Your task to perform on an android device: turn off priority inbox in the gmail app Image 0: 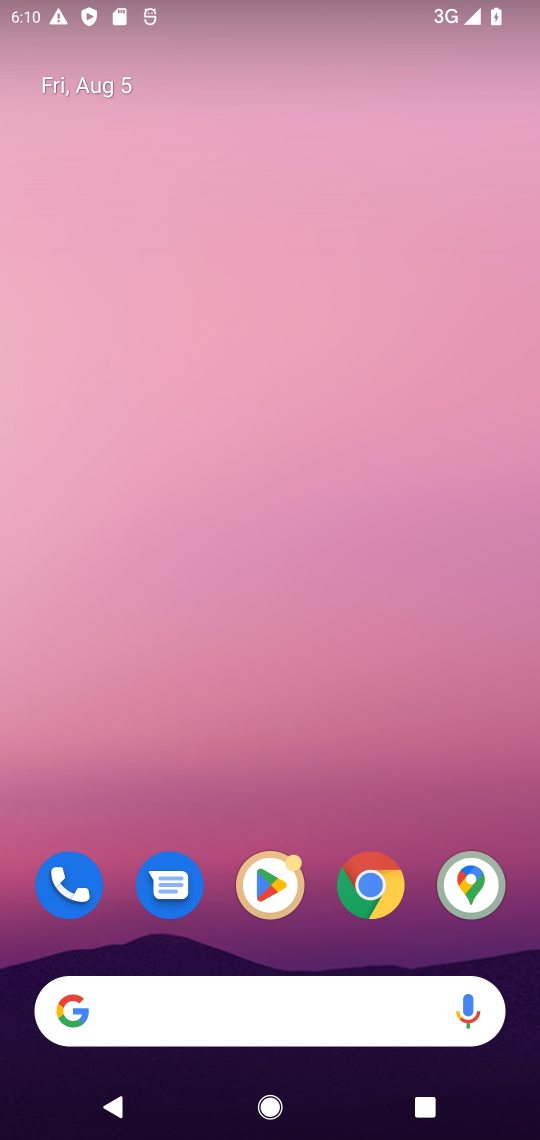
Step 0: drag from (197, 966) to (223, 14)
Your task to perform on an android device: turn off priority inbox in the gmail app Image 1: 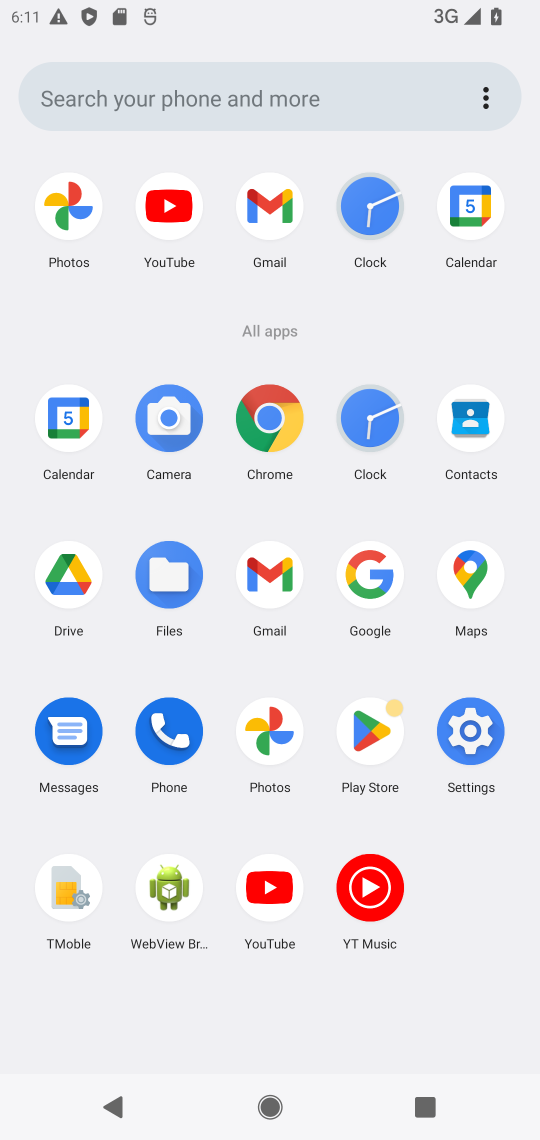
Step 1: press home button
Your task to perform on an android device: turn off priority inbox in the gmail app Image 2: 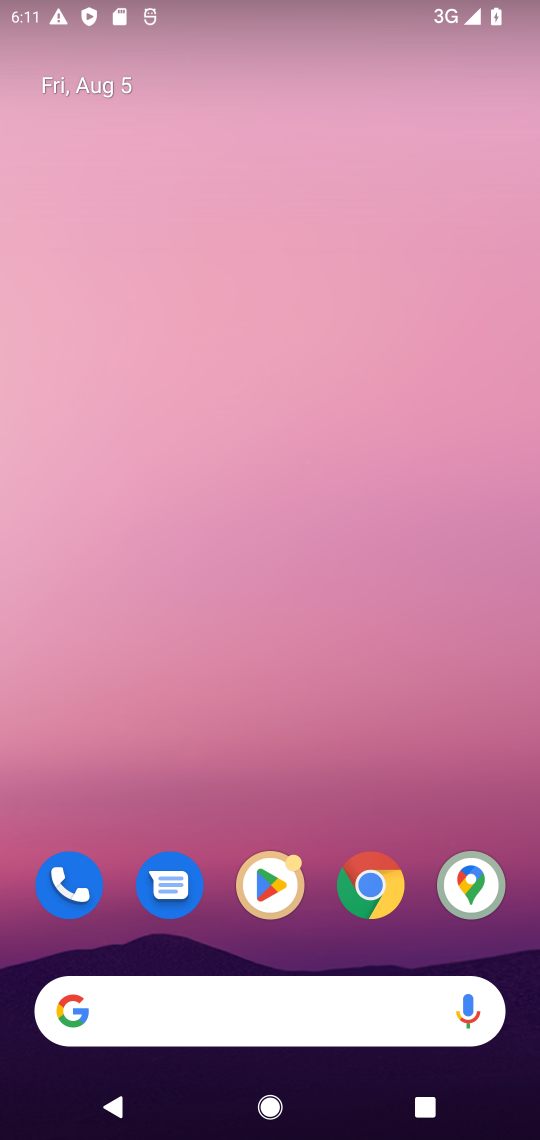
Step 2: drag from (215, 877) to (224, 11)
Your task to perform on an android device: turn off priority inbox in the gmail app Image 3: 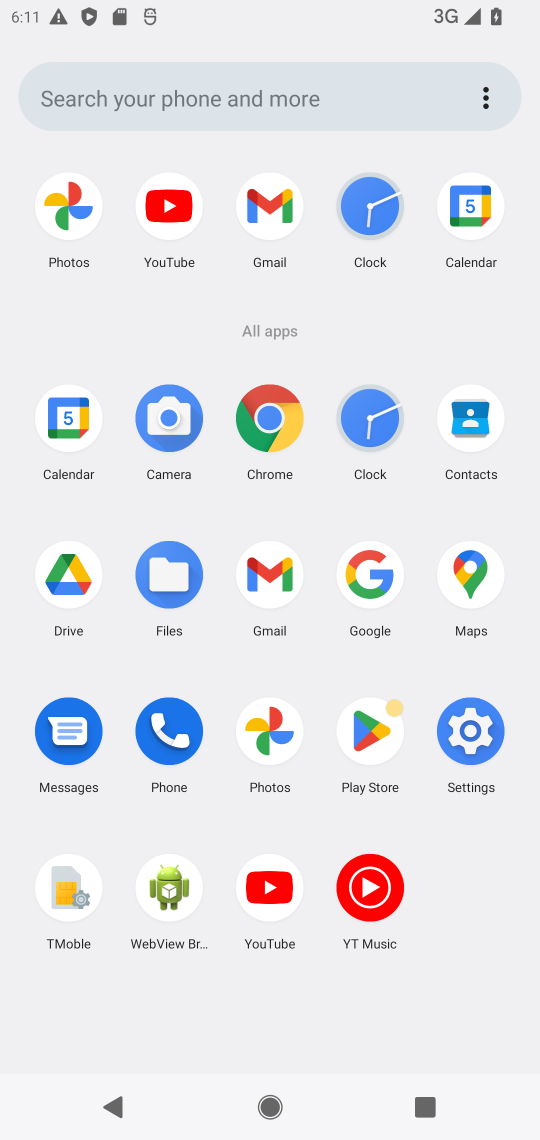
Step 3: click (289, 604)
Your task to perform on an android device: turn off priority inbox in the gmail app Image 4: 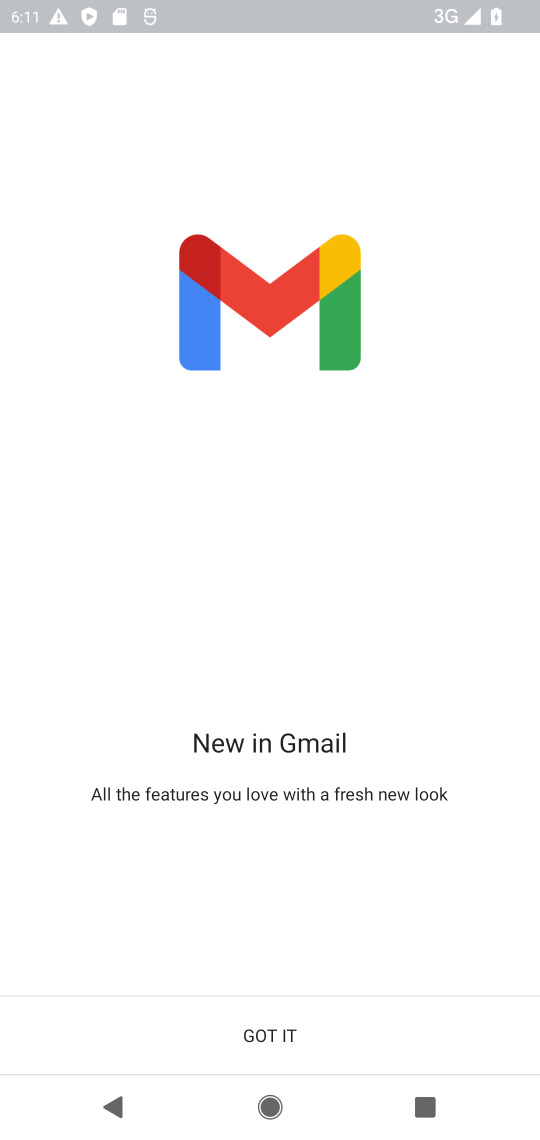
Step 4: click (280, 1028)
Your task to perform on an android device: turn off priority inbox in the gmail app Image 5: 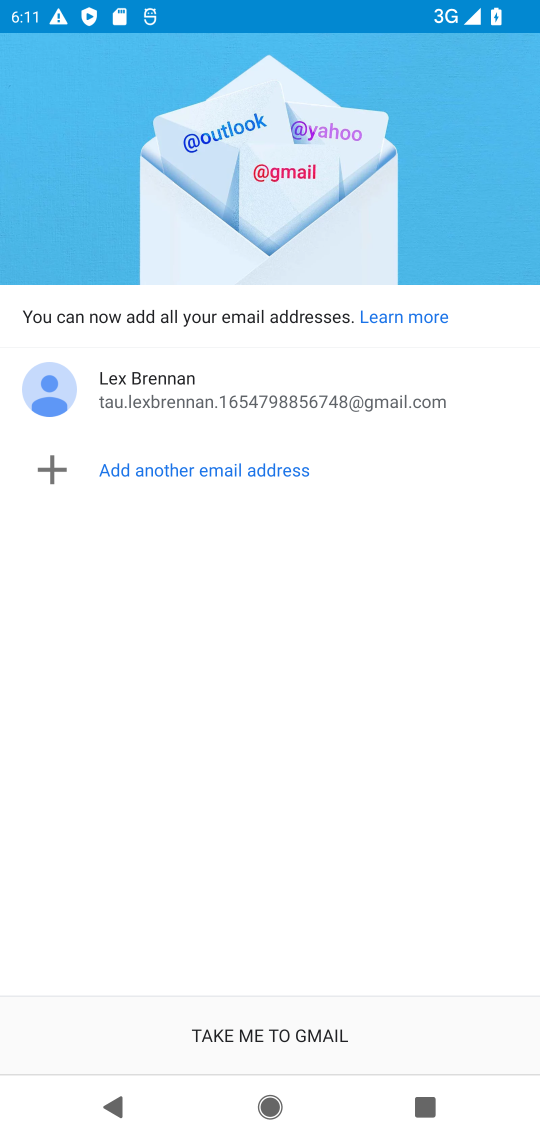
Step 5: click (251, 1028)
Your task to perform on an android device: turn off priority inbox in the gmail app Image 6: 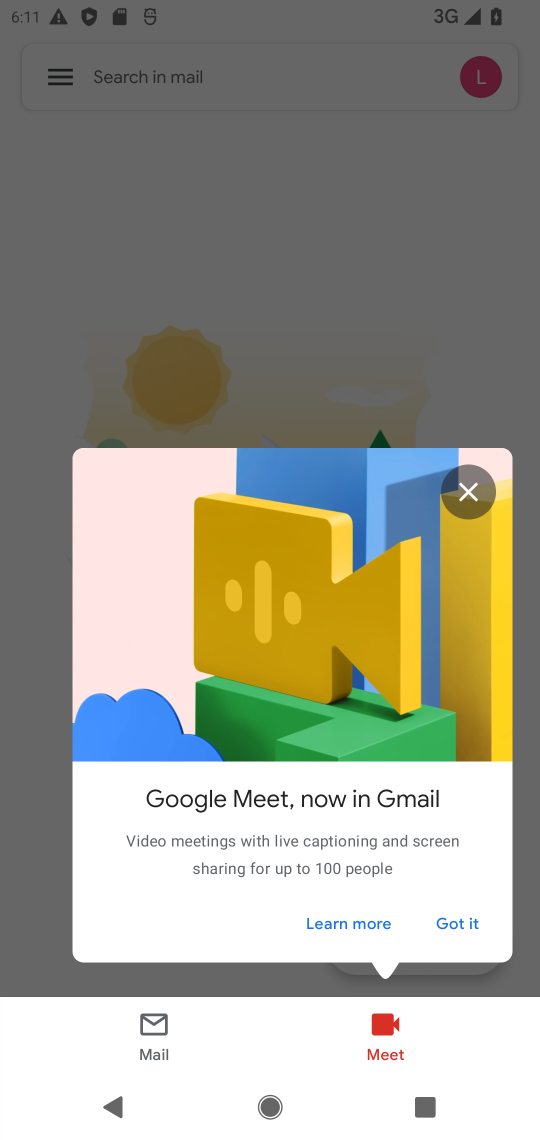
Step 6: click (450, 927)
Your task to perform on an android device: turn off priority inbox in the gmail app Image 7: 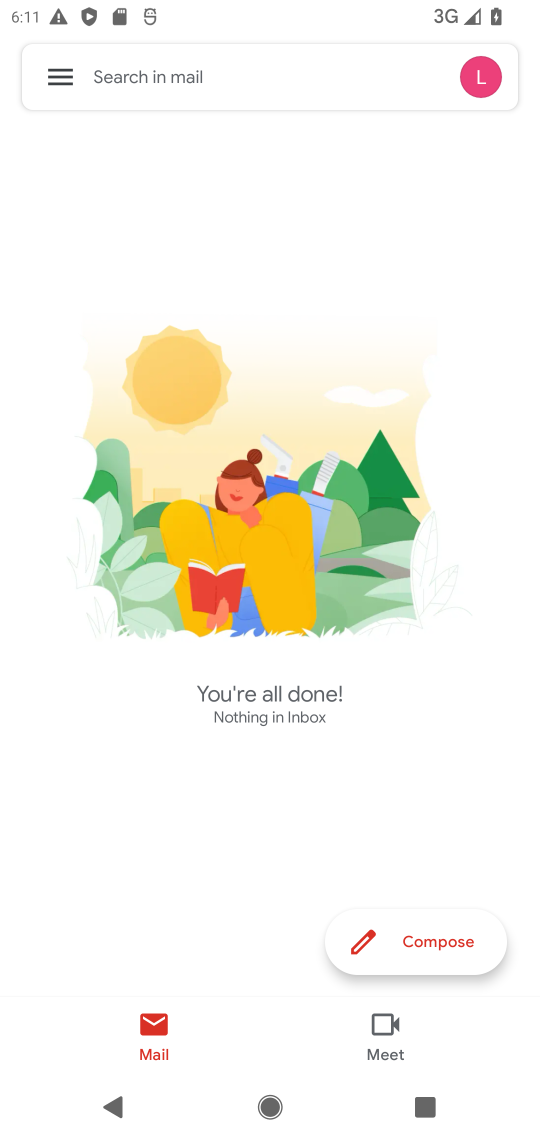
Step 7: click (47, 77)
Your task to perform on an android device: turn off priority inbox in the gmail app Image 8: 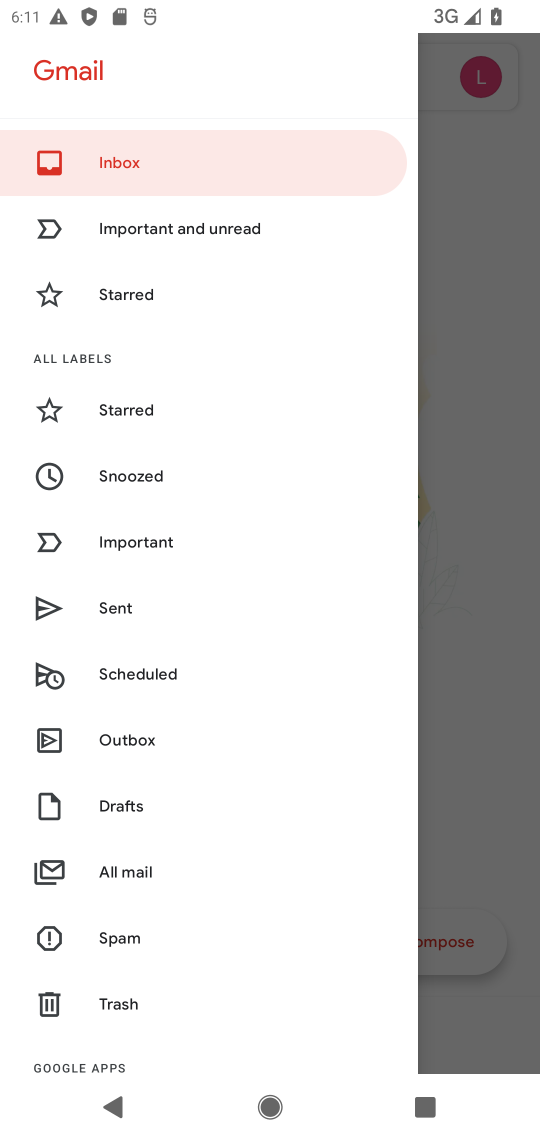
Step 8: drag from (155, 885) to (183, 432)
Your task to perform on an android device: turn off priority inbox in the gmail app Image 9: 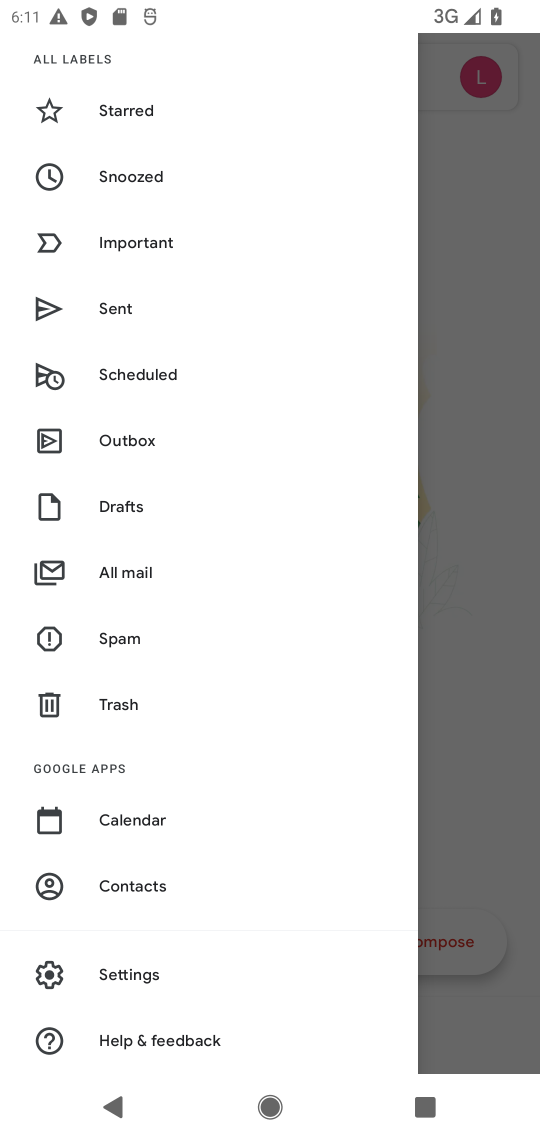
Step 9: click (118, 979)
Your task to perform on an android device: turn off priority inbox in the gmail app Image 10: 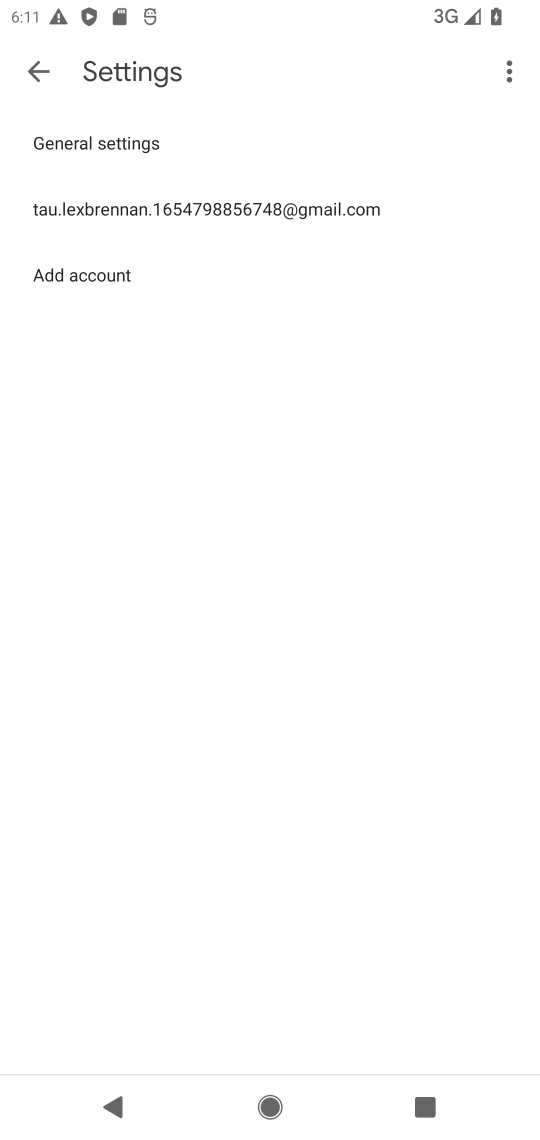
Step 10: click (139, 217)
Your task to perform on an android device: turn off priority inbox in the gmail app Image 11: 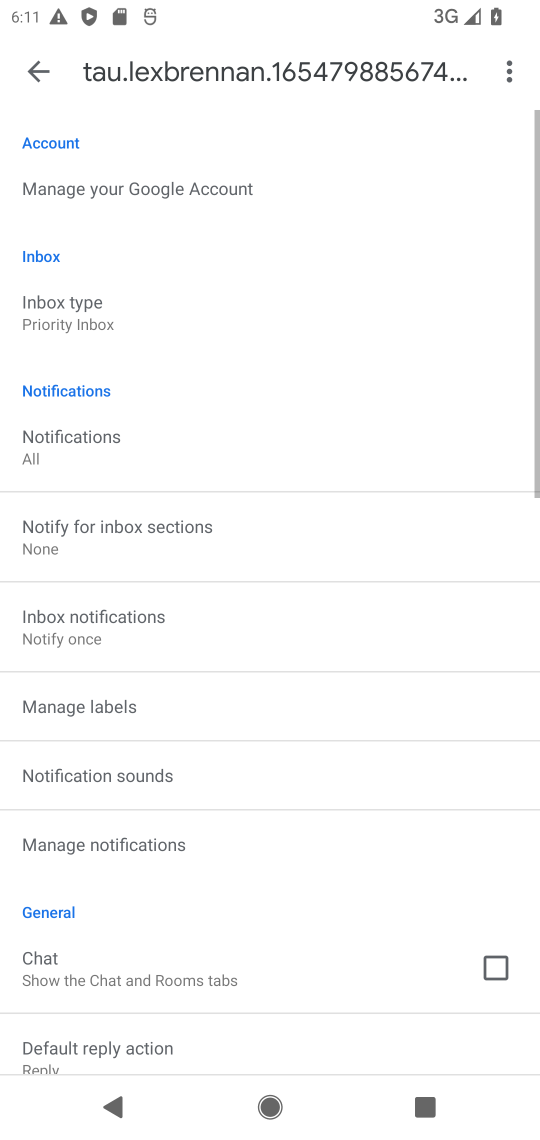
Step 11: click (113, 331)
Your task to perform on an android device: turn off priority inbox in the gmail app Image 12: 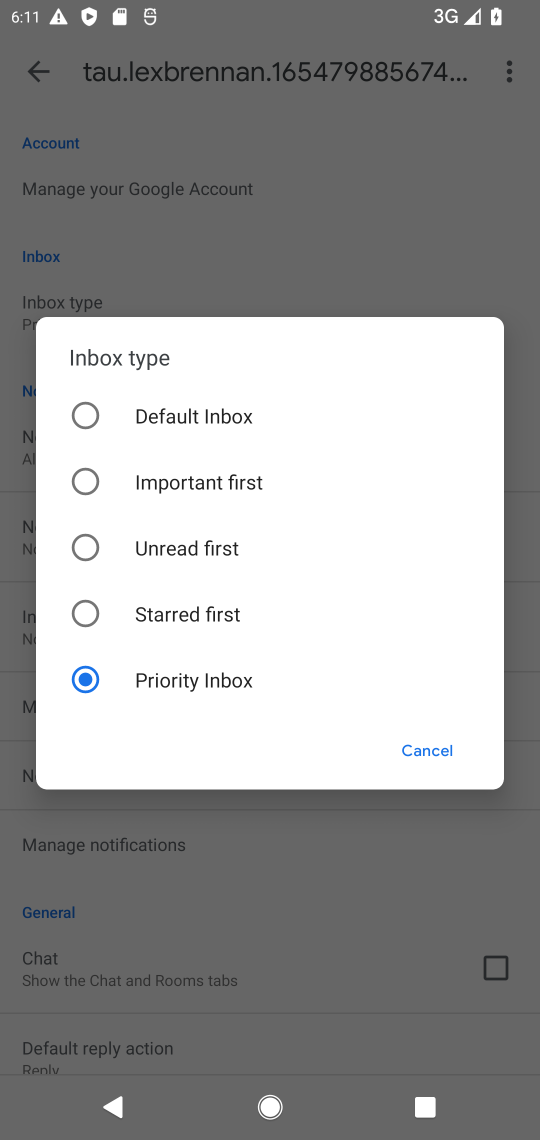
Step 12: click (156, 419)
Your task to perform on an android device: turn off priority inbox in the gmail app Image 13: 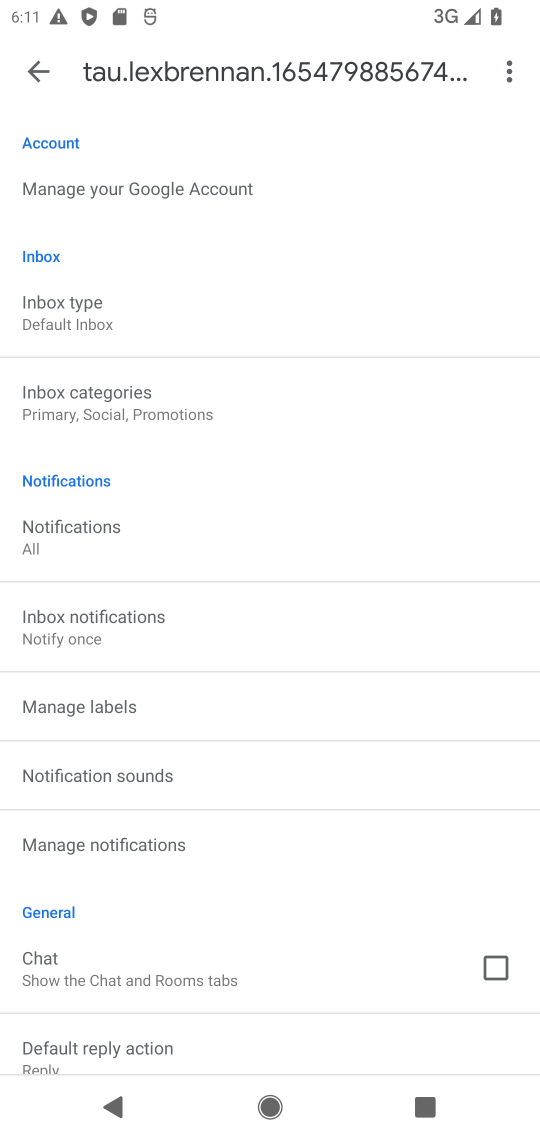
Step 13: task complete